Your task to perform on an android device: empty trash in the gmail app Image 0: 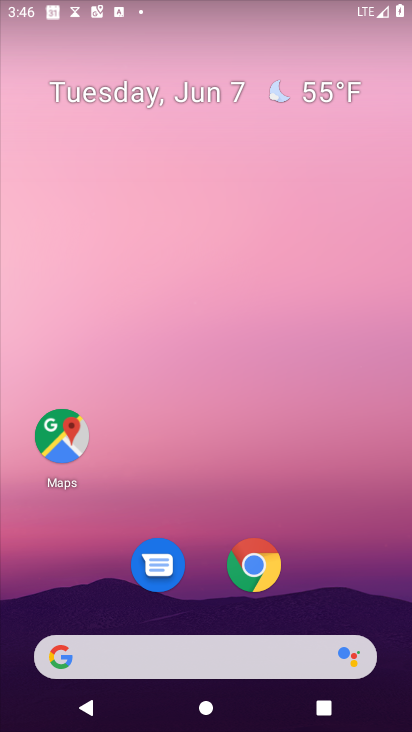
Step 0: drag from (263, 642) to (317, 26)
Your task to perform on an android device: empty trash in the gmail app Image 1: 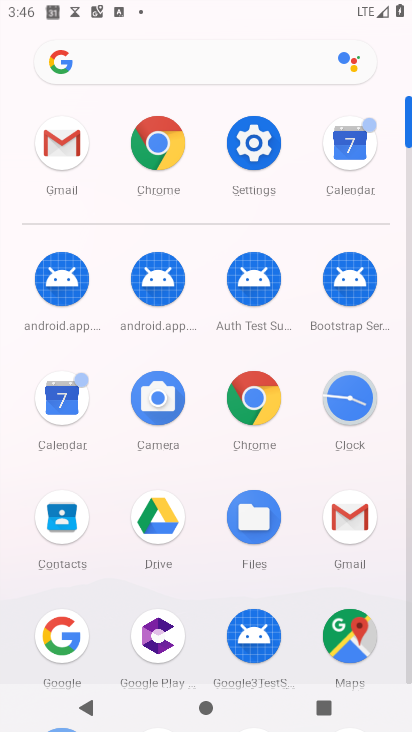
Step 1: click (352, 506)
Your task to perform on an android device: empty trash in the gmail app Image 2: 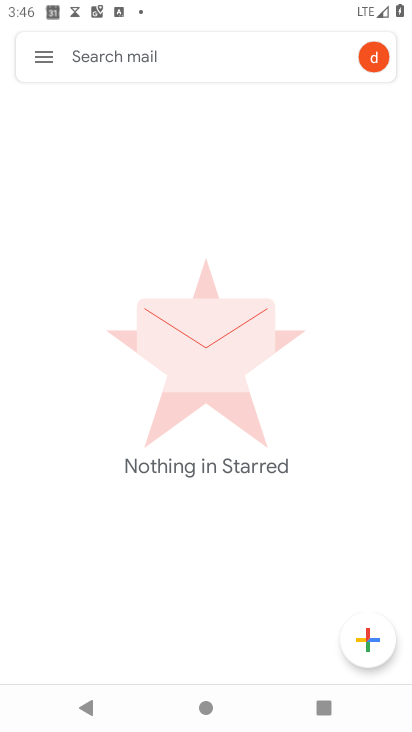
Step 2: click (21, 52)
Your task to perform on an android device: empty trash in the gmail app Image 3: 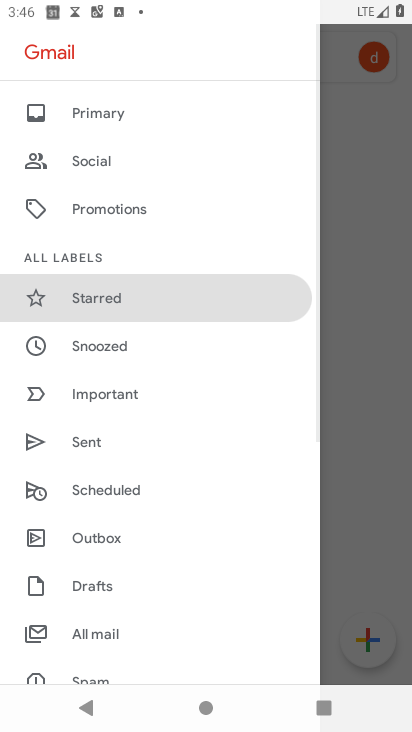
Step 3: drag from (117, 592) to (147, 234)
Your task to perform on an android device: empty trash in the gmail app Image 4: 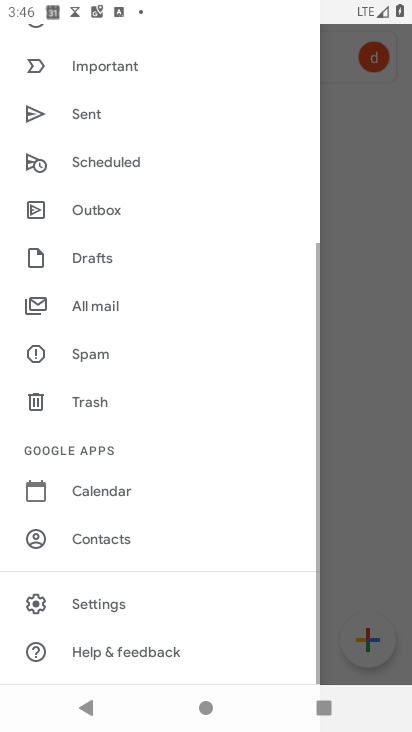
Step 4: click (118, 406)
Your task to perform on an android device: empty trash in the gmail app Image 5: 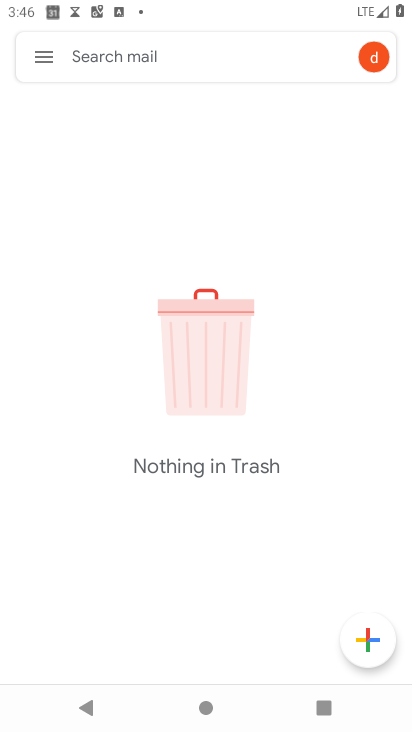
Step 5: task complete